Your task to perform on an android device: open app "McDonald's" Image 0: 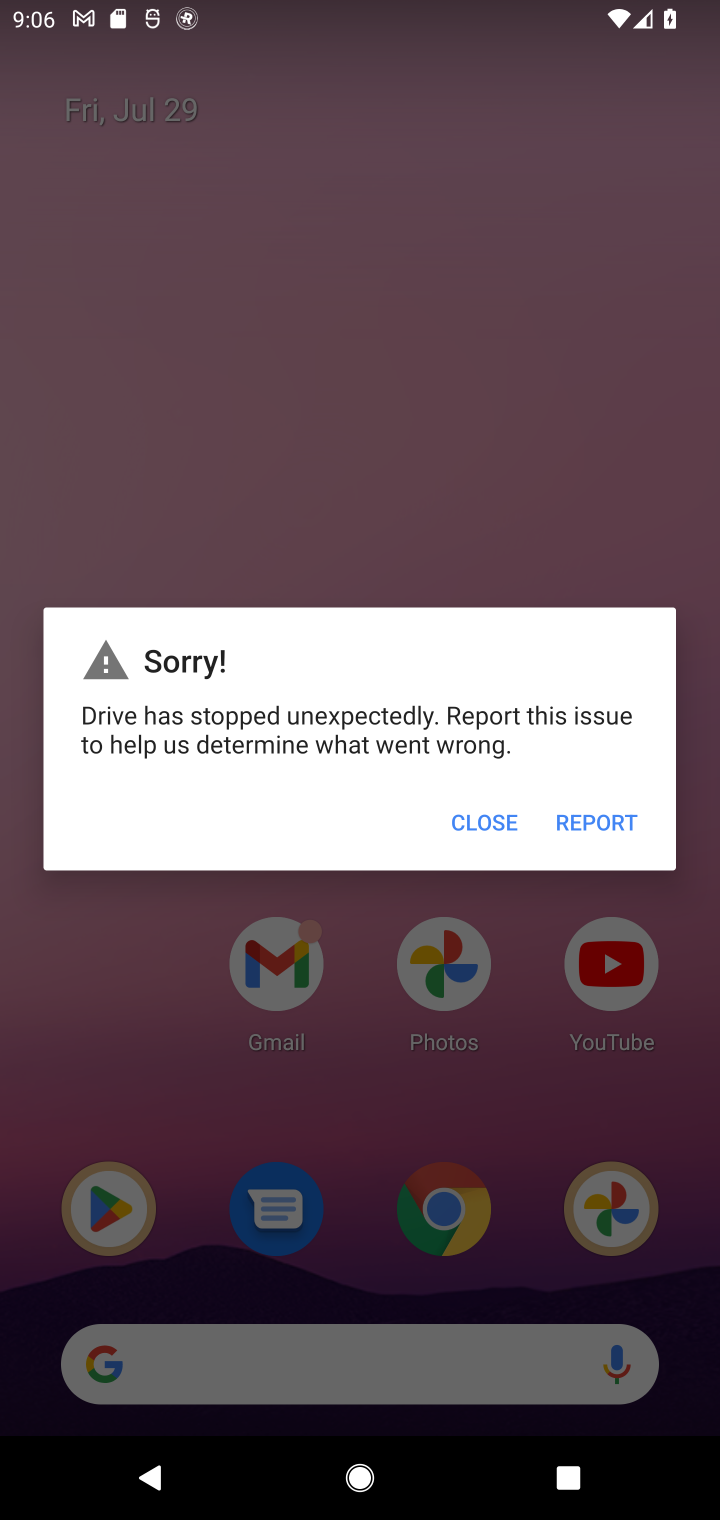
Step 0: press home button
Your task to perform on an android device: open app "McDonald's" Image 1: 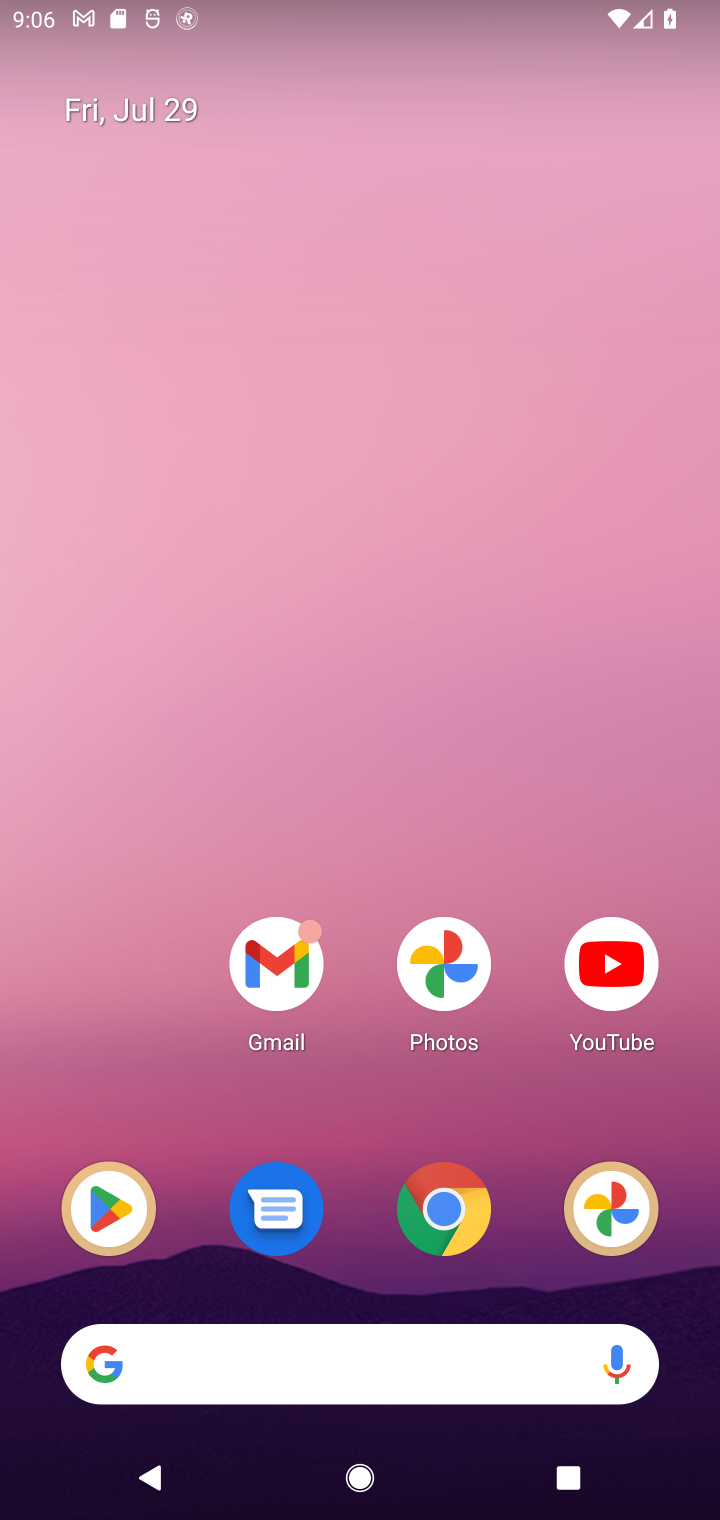
Step 1: drag from (310, 1381) to (354, 330)
Your task to perform on an android device: open app "McDonald's" Image 2: 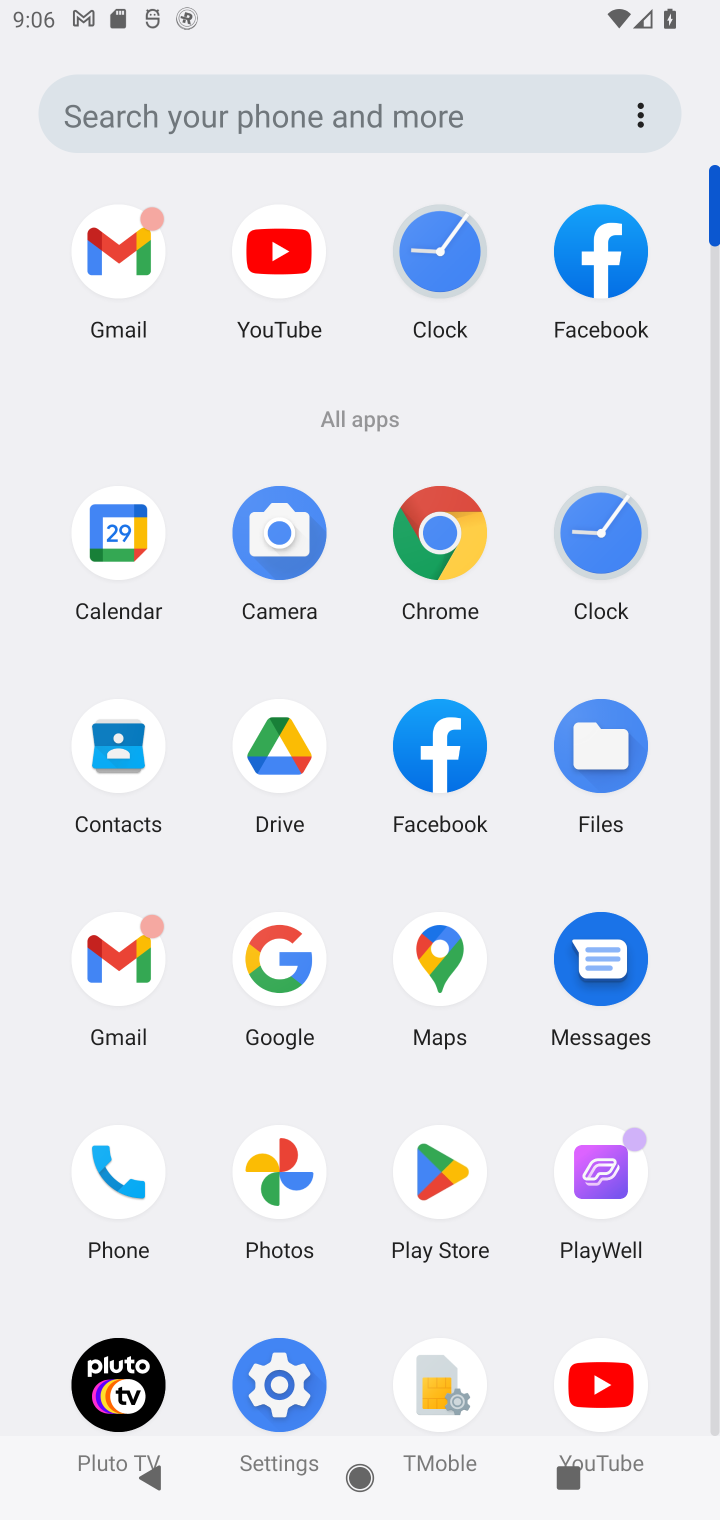
Step 2: drag from (374, 1370) to (428, 1228)
Your task to perform on an android device: open app "McDonald's" Image 3: 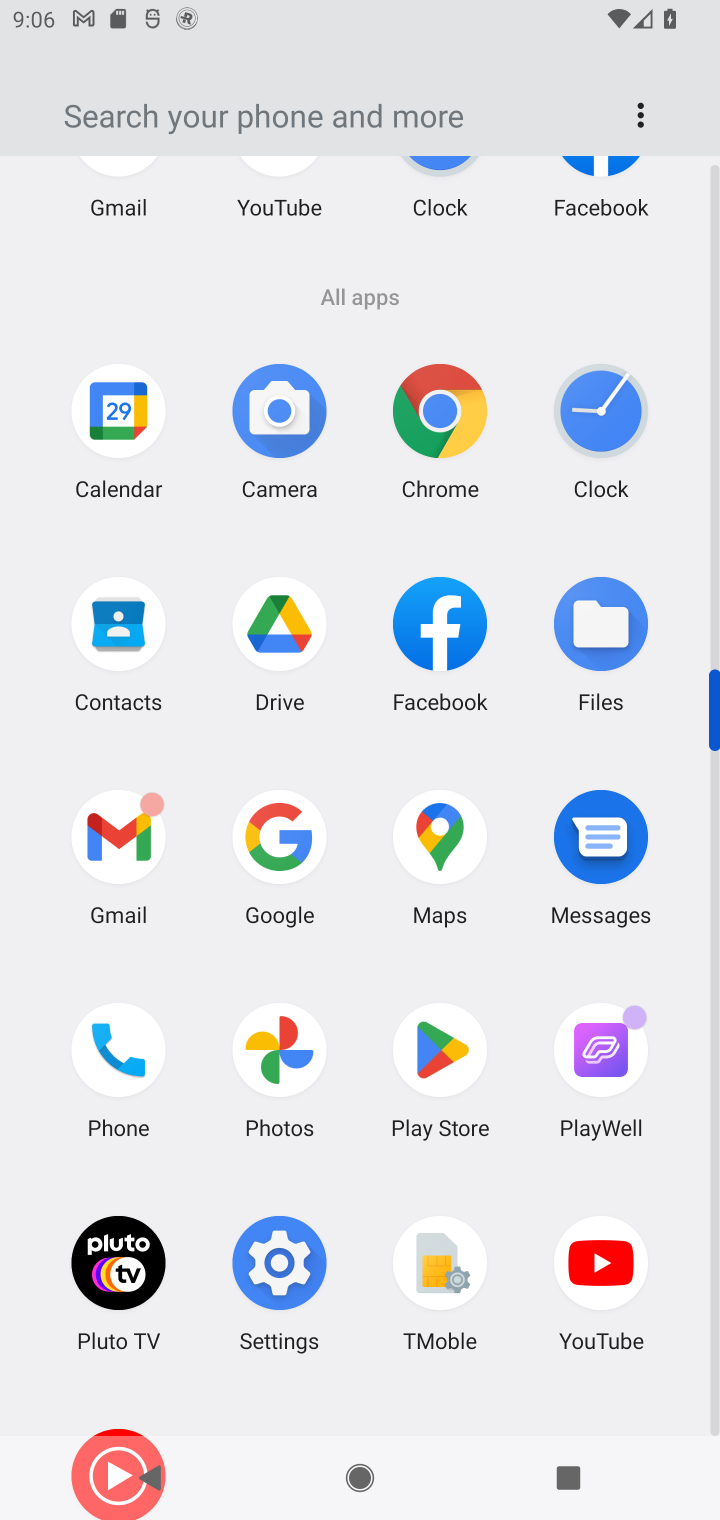
Step 3: click (436, 1056)
Your task to perform on an android device: open app "McDonald's" Image 4: 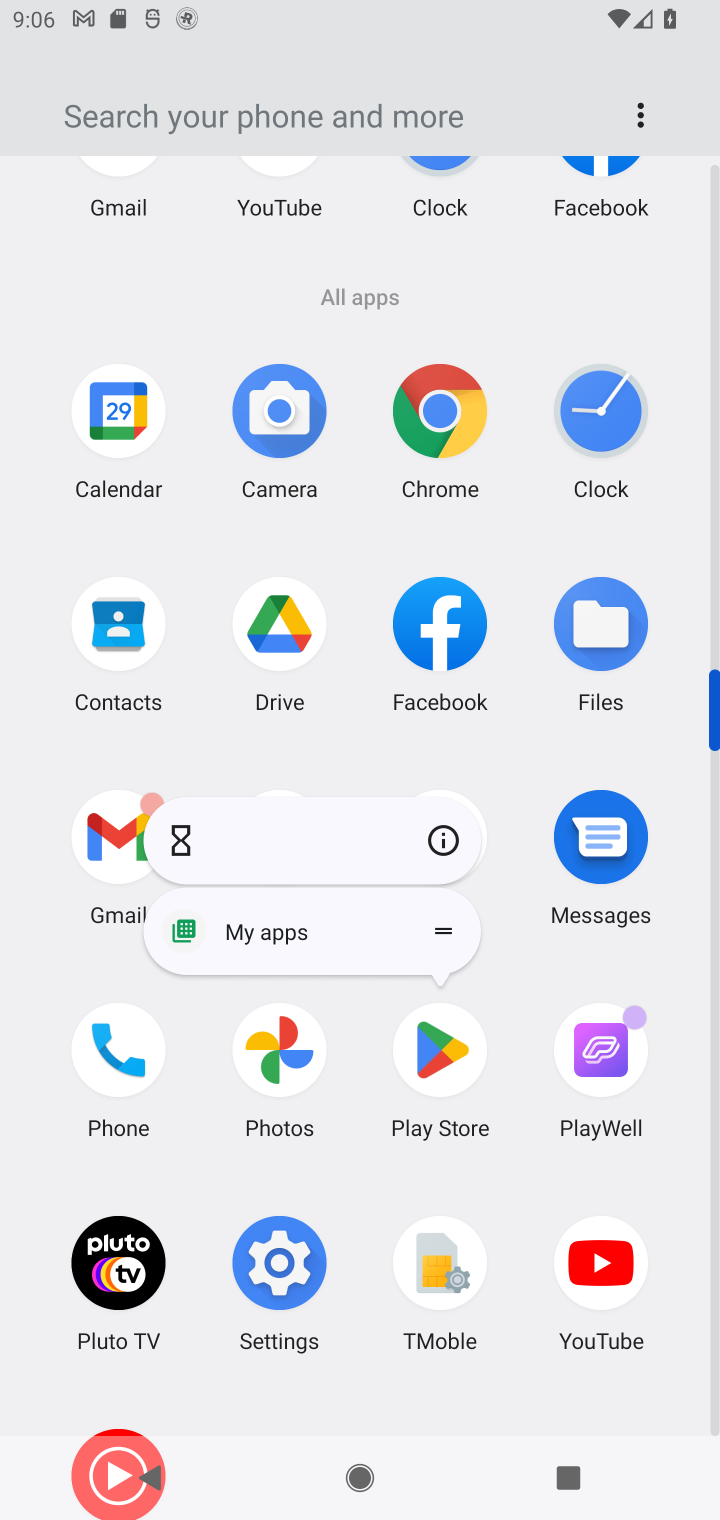
Step 4: click (438, 1057)
Your task to perform on an android device: open app "McDonald's" Image 5: 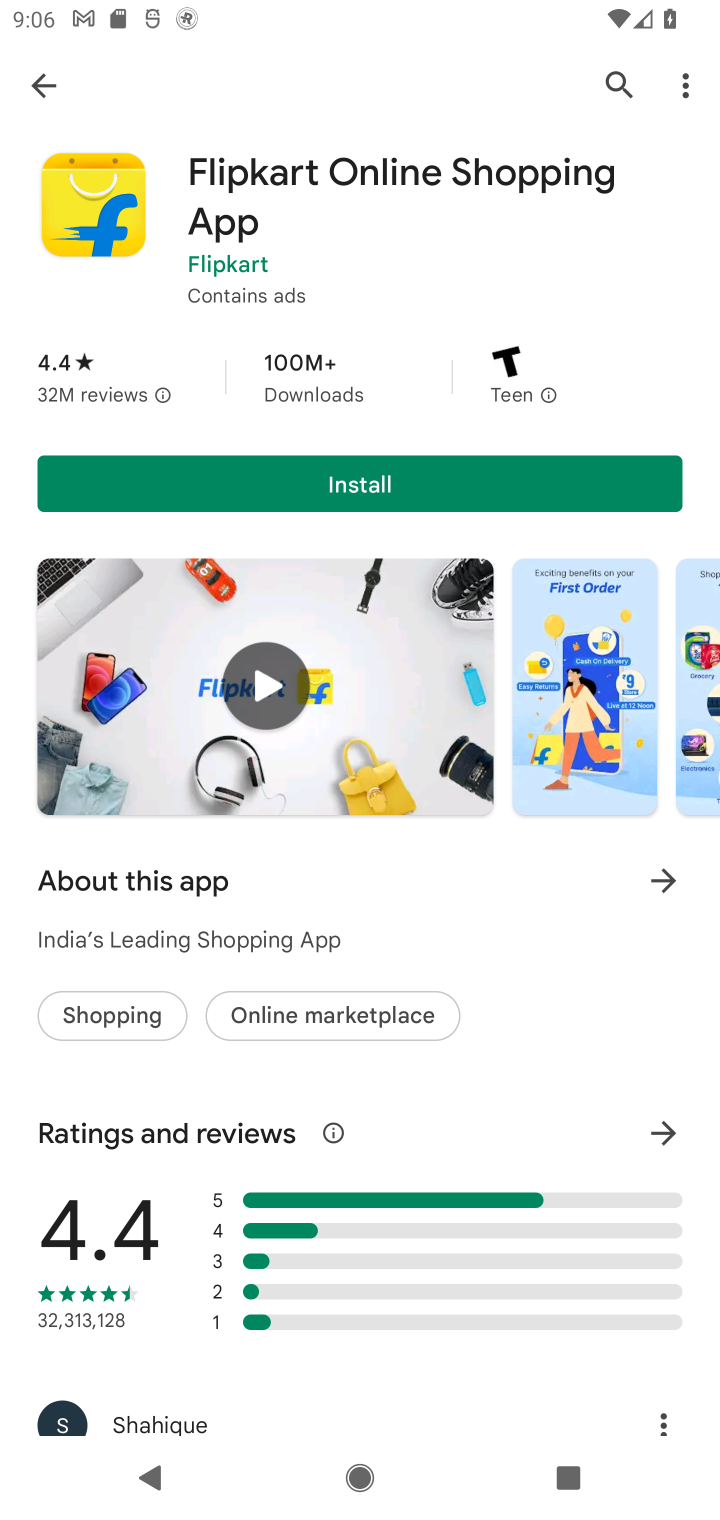
Step 5: click (618, 78)
Your task to perform on an android device: open app "McDonald's" Image 6: 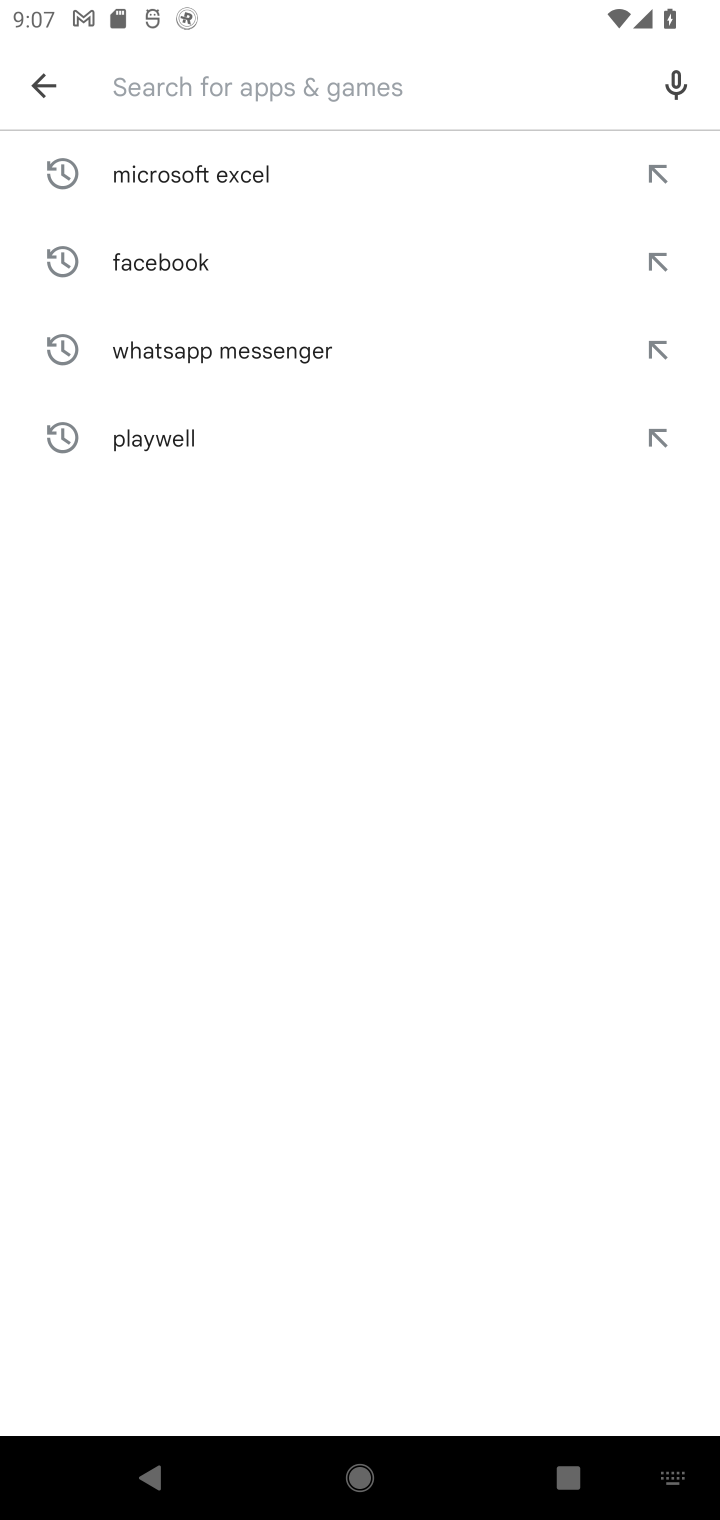
Step 6: type "McDonald's"
Your task to perform on an android device: open app "McDonald's" Image 7: 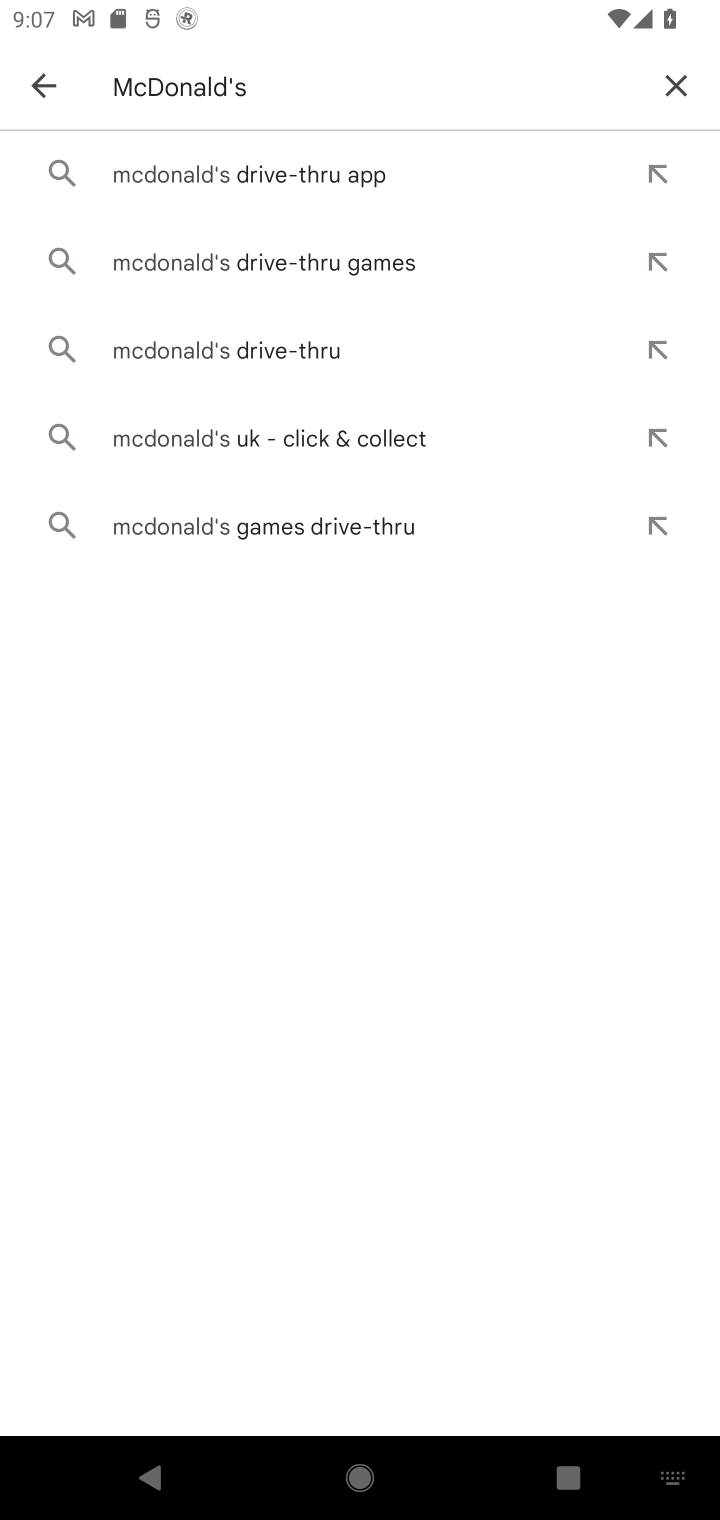
Step 7: click (168, 175)
Your task to perform on an android device: open app "McDonald's" Image 8: 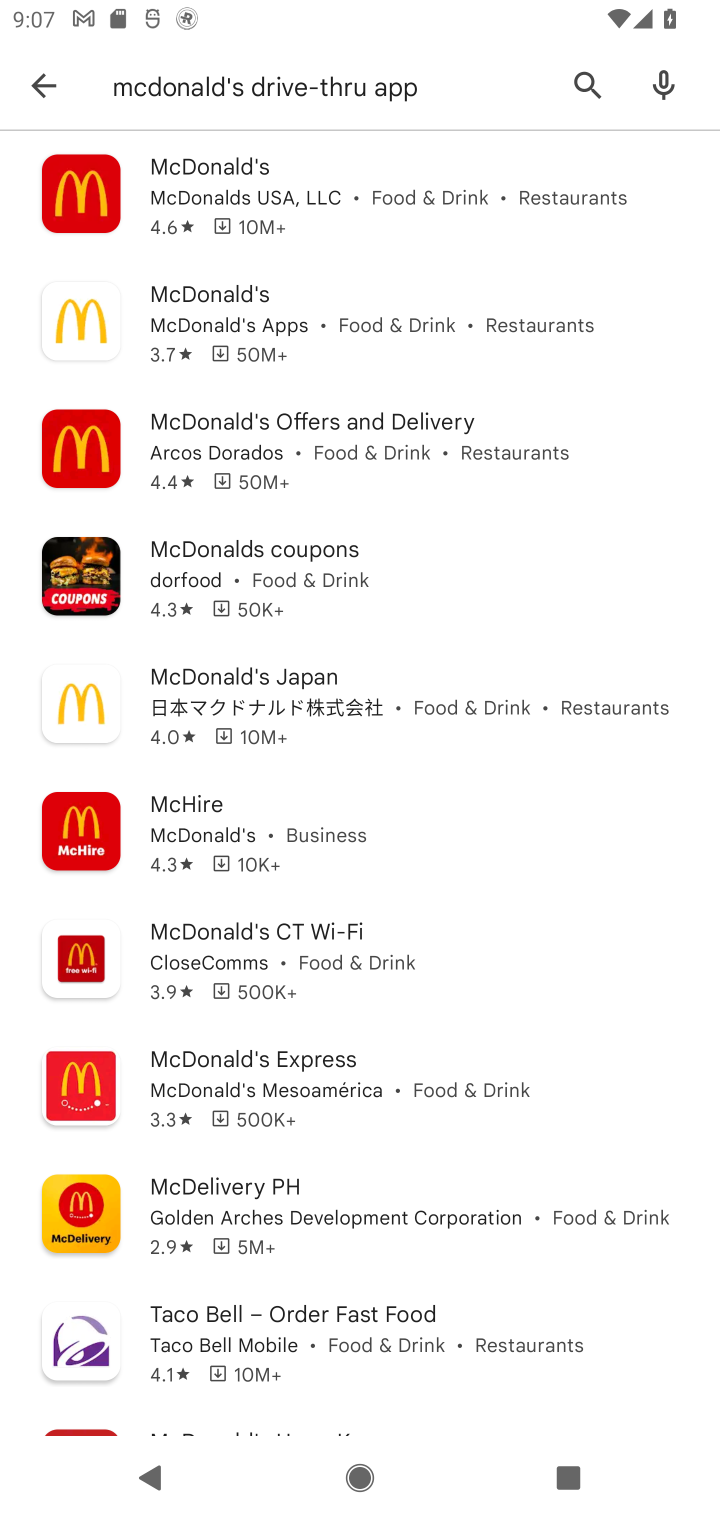
Step 8: click (286, 199)
Your task to perform on an android device: open app "McDonald's" Image 9: 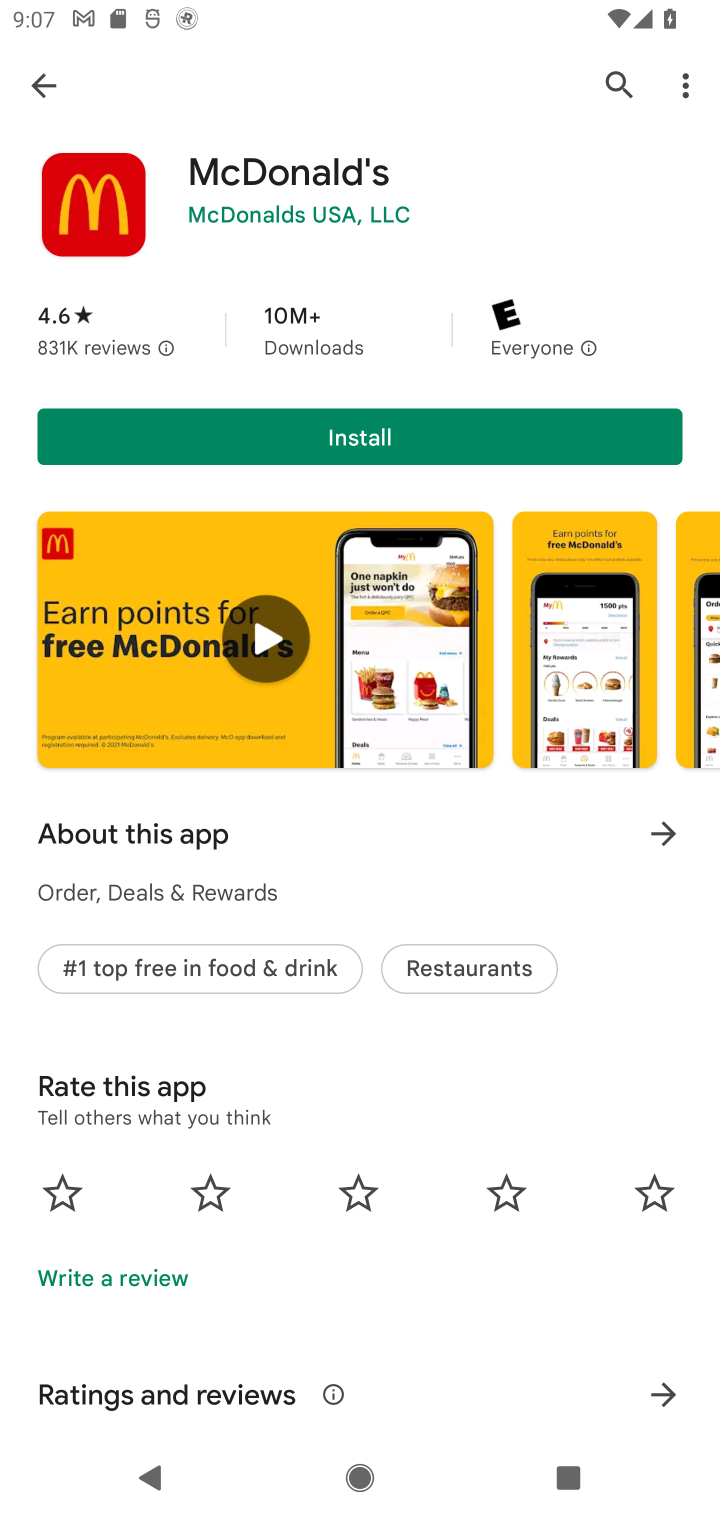
Step 9: task complete